Your task to perform on an android device: Go to notification settings Image 0: 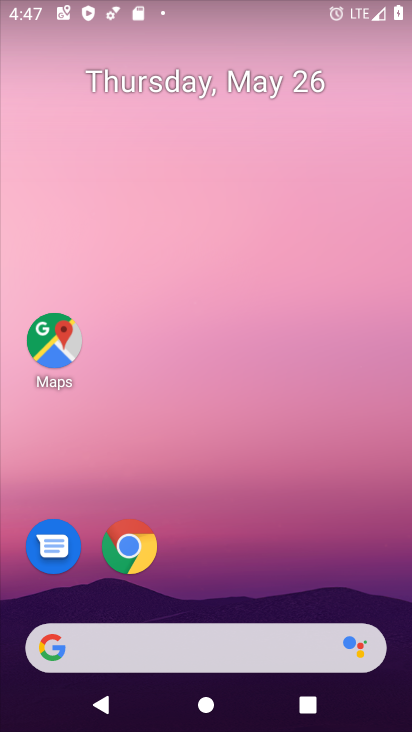
Step 0: drag from (240, 467) to (284, 57)
Your task to perform on an android device: Go to notification settings Image 1: 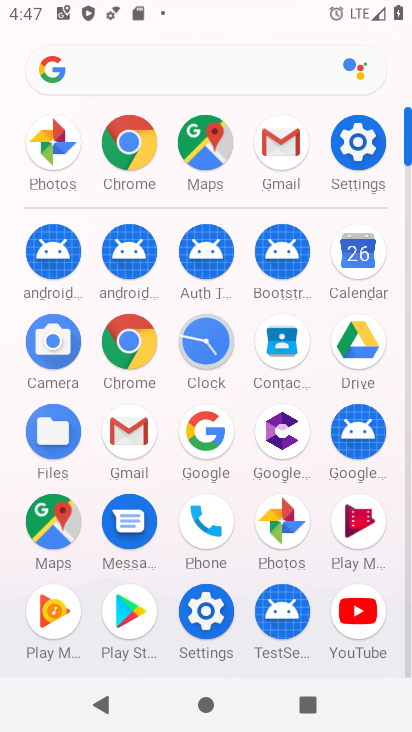
Step 1: click (373, 150)
Your task to perform on an android device: Go to notification settings Image 2: 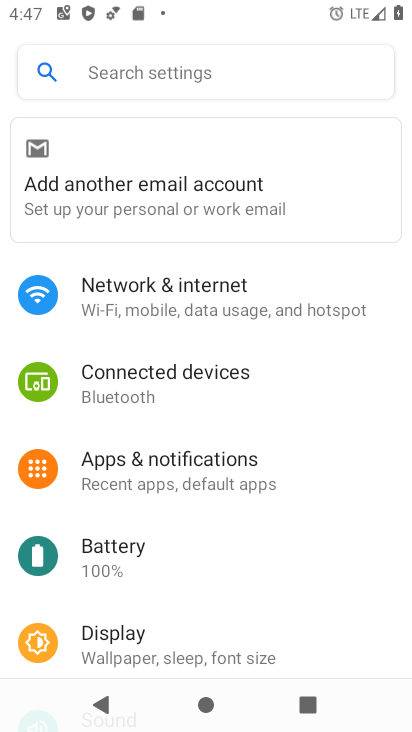
Step 2: click (181, 473)
Your task to perform on an android device: Go to notification settings Image 3: 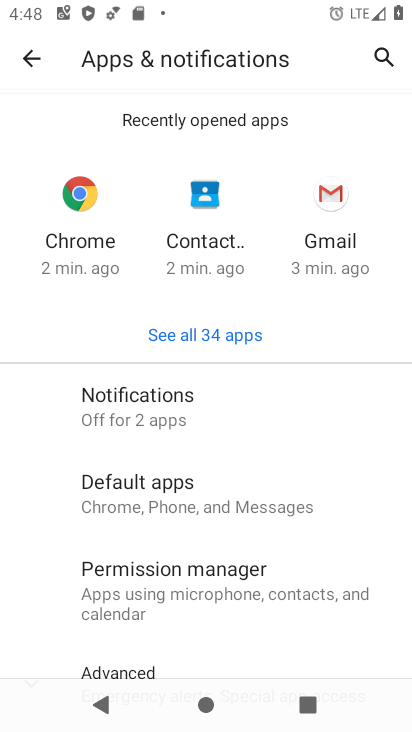
Step 3: click (156, 398)
Your task to perform on an android device: Go to notification settings Image 4: 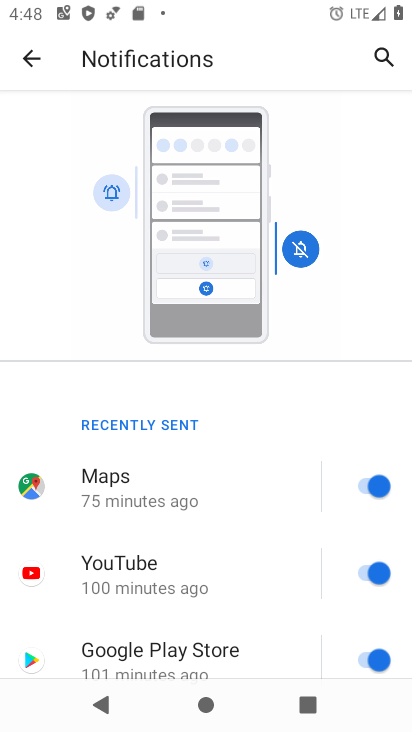
Step 4: task complete